Your task to perform on an android device: turn smart compose on in the gmail app Image 0: 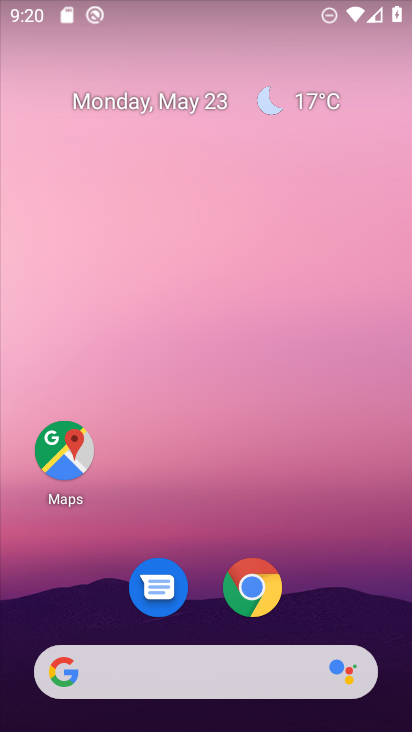
Step 0: drag from (212, 581) to (278, 89)
Your task to perform on an android device: turn smart compose on in the gmail app Image 1: 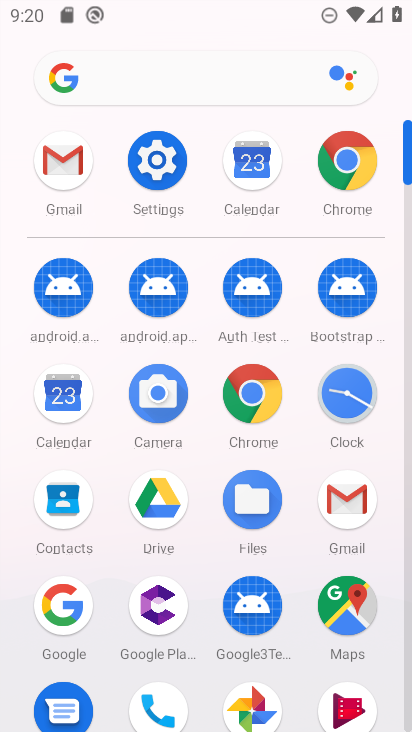
Step 1: click (58, 152)
Your task to perform on an android device: turn smart compose on in the gmail app Image 2: 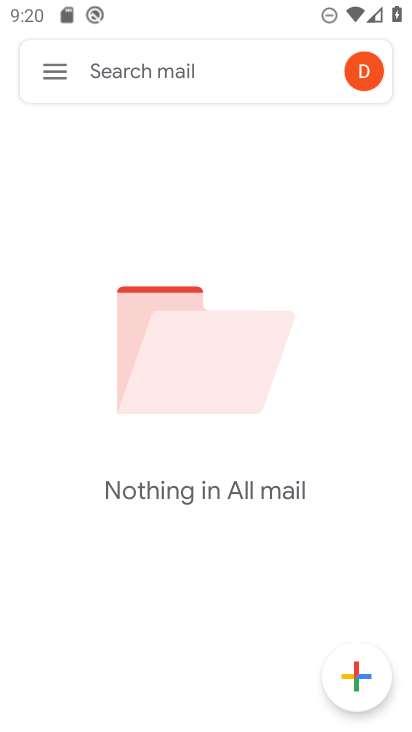
Step 2: click (59, 66)
Your task to perform on an android device: turn smart compose on in the gmail app Image 3: 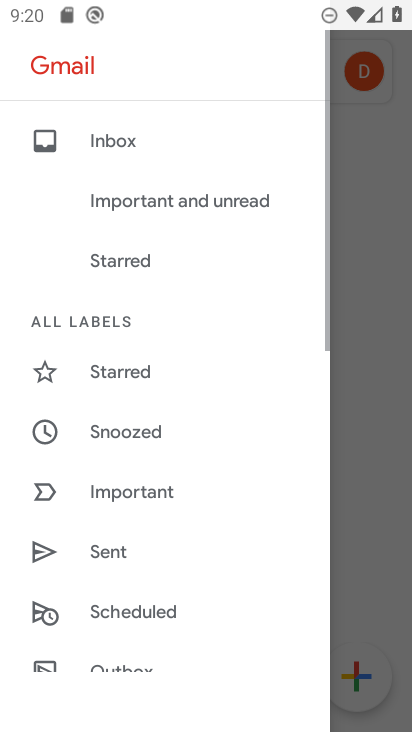
Step 3: drag from (143, 596) to (235, 79)
Your task to perform on an android device: turn smart compose on in the gmail app Image 4: 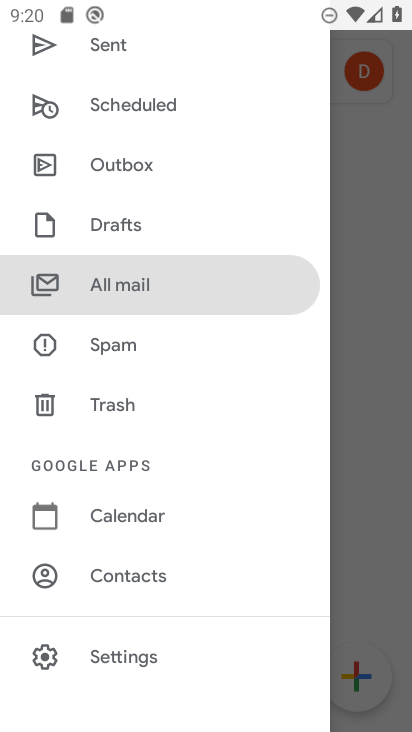
Step 4: click (106, 658)
Your task to perform on an android device: turn smart compose on in the gmail app Image 5: 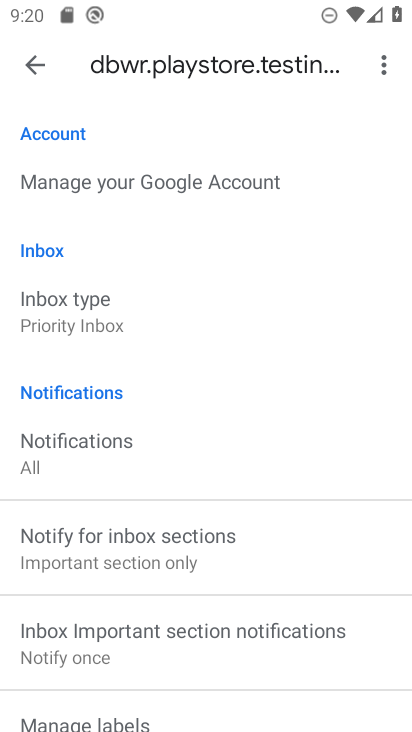
Step 5: task complete